Your task to perform on an android device: clear history in the chrome app Image 0: 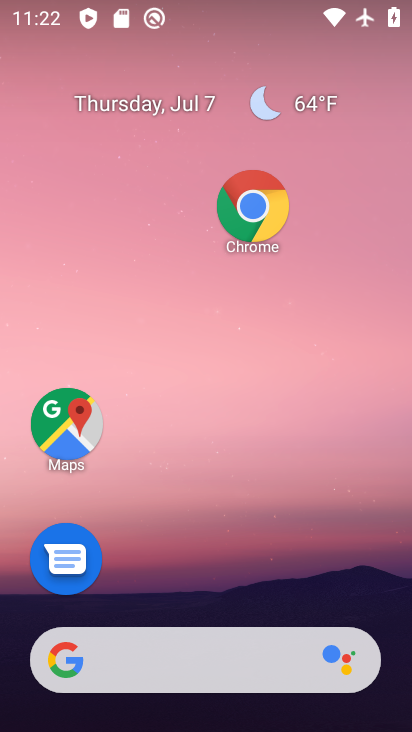
Step 0: click (247, 213)
Your task to perform on an android device: clear history in the chrome app Image 1: 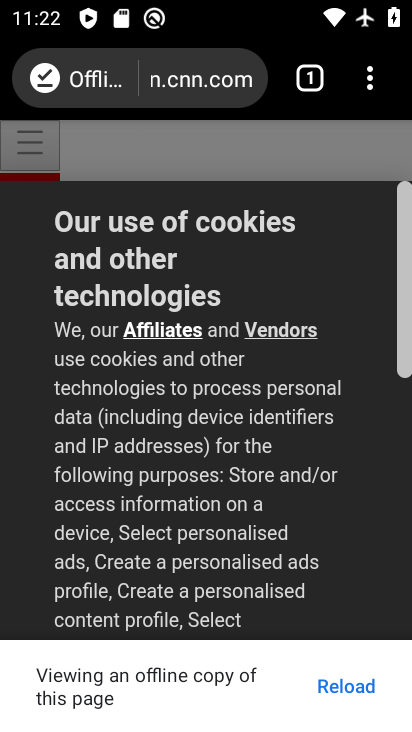
Step 1: click (370, 73)
Your task to perform on an android device: clear history in the chrome app Image 2: 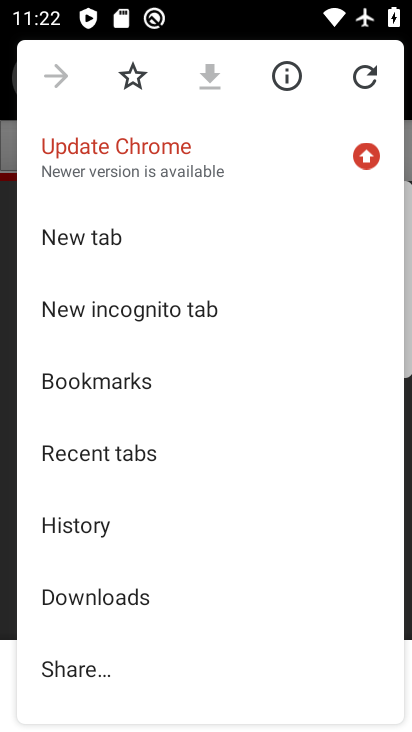
Step 2: drag from (111, 644) to (127, 325)
Your task to perform on an android device: clear history in the chrome app Image 3: 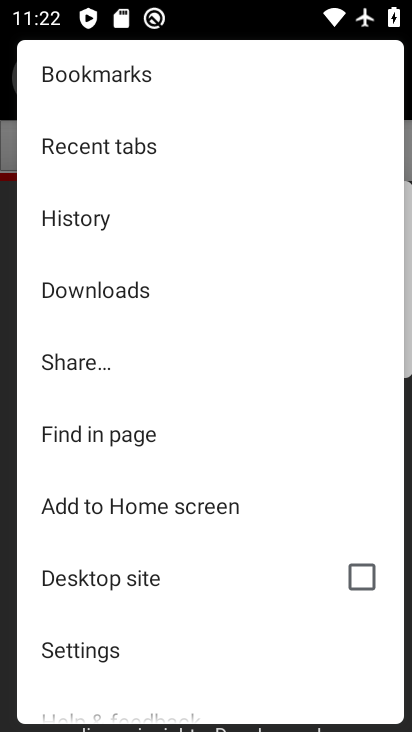
Step 3: click (97, 650)
Your task to perform on an android device: clear history in the chrome app Image 4: 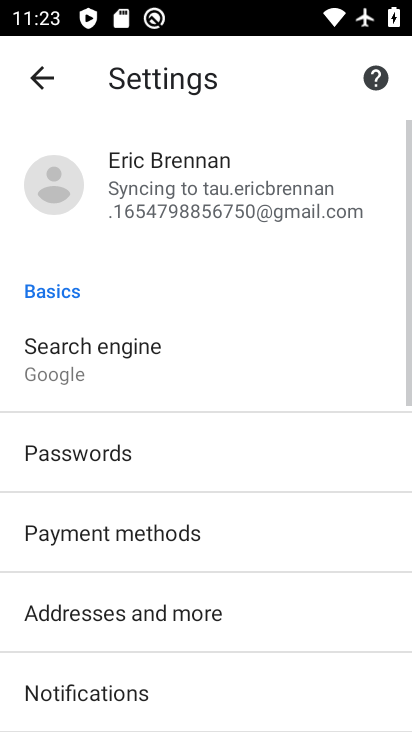
Step 4: drag from (180, 711) to (174, 357)
Your task to perform on an android device: clear history in the chrome app Image 5: 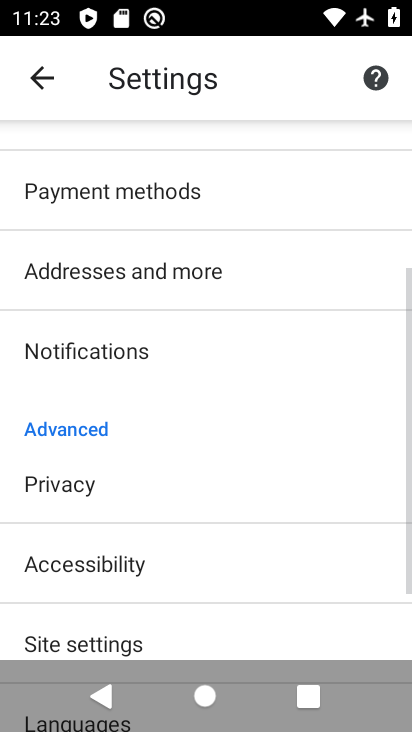
Step 5: drag from (105, 622) to (112, 324)
Your task to perform on an android device: clear history in the chrome app Image 6: 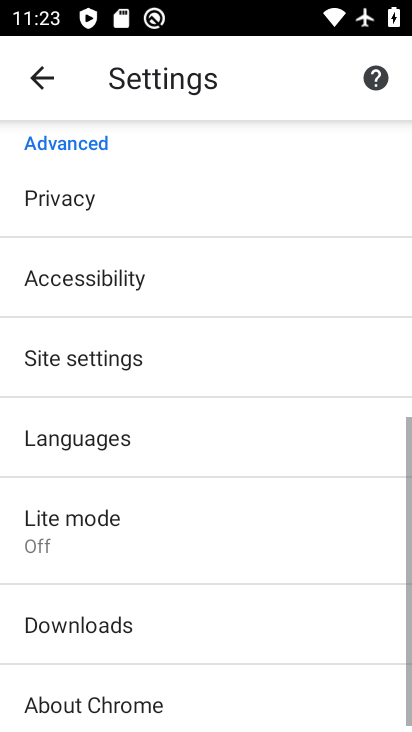
Step 6: click (57, 199)
Your task to perform on an android device: clear history in the chrome app Image 7: 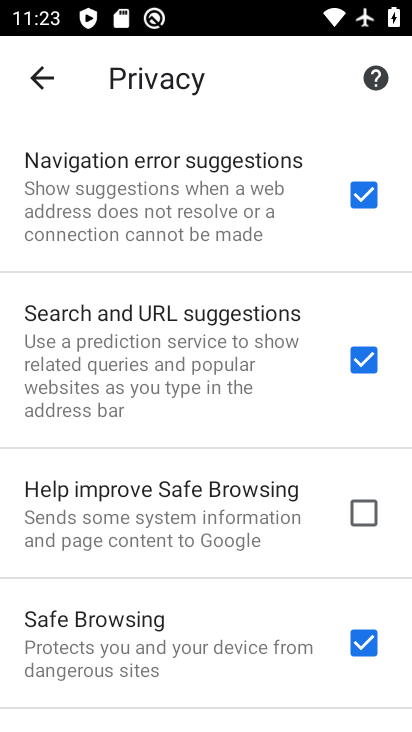
Step 7: drag from (274, 652) to (266, 208)
Your task to perform on an android device: clear history in the chrome app Image 8: 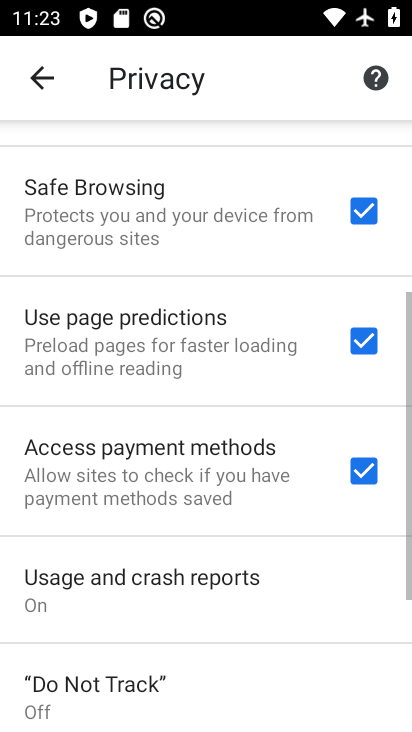
Step 8: drag from (88, 679) to (101, 311)
Your task to perform on an android device: clear history in the chrome app Image 9: 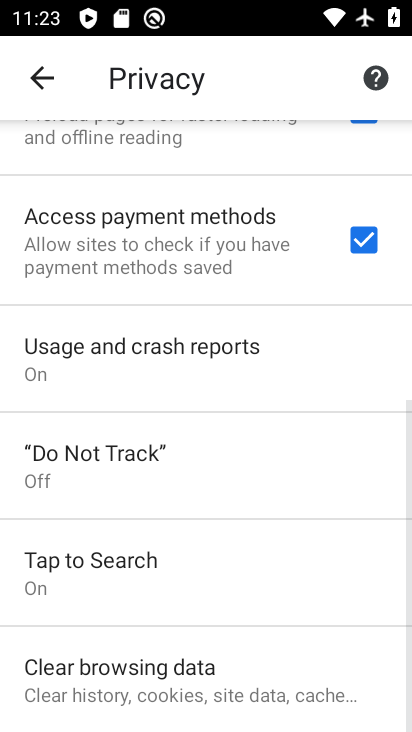
Step 9: click (94, 681)
Your task to perform on an android device: clear history in the chrome app Image 10: 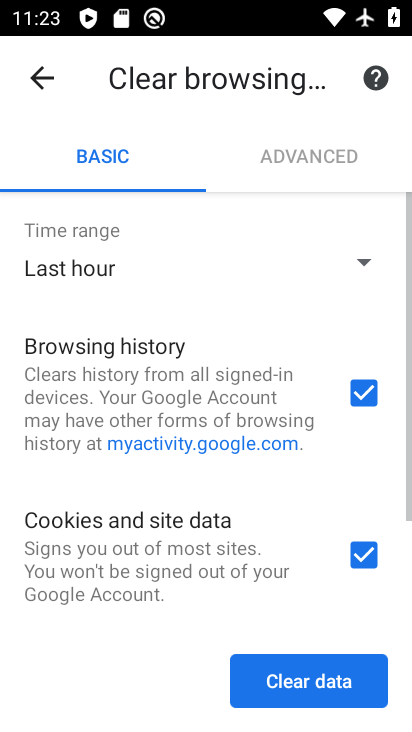
Step 10: drag from (272, 607) to (295, 238)
Your task to perform on an android device: clear history in the chrome app Image 11: 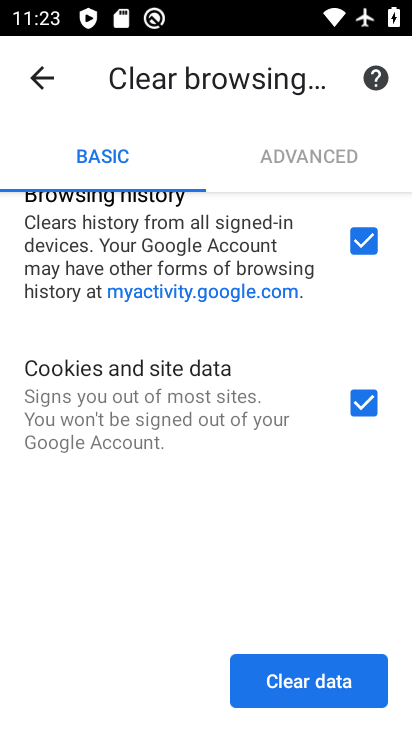
Step 11: click (302, 676)
Your task to perform on an android device: clear history in the chrome app Image 12: 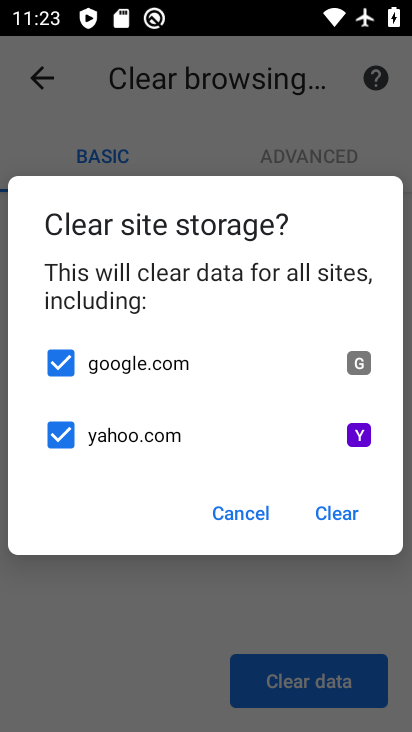
Step 12: click (329, 506)
Your task to perform on an android device: clear history in the chrome app Image 13: 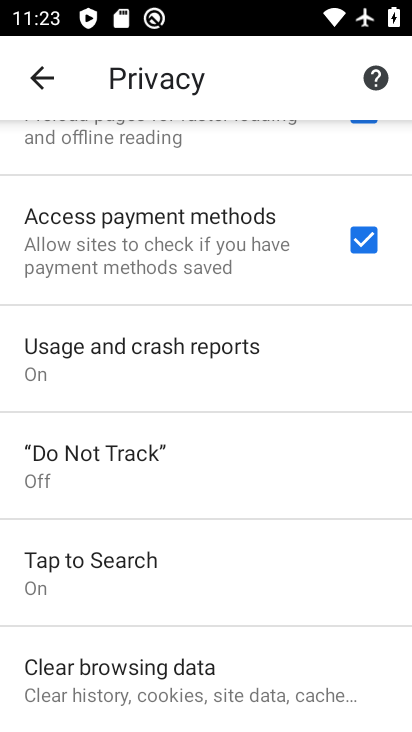
Step 13: task complete